Your task to perform on an android device: turn vacation reply on in the gmail app Image 0: 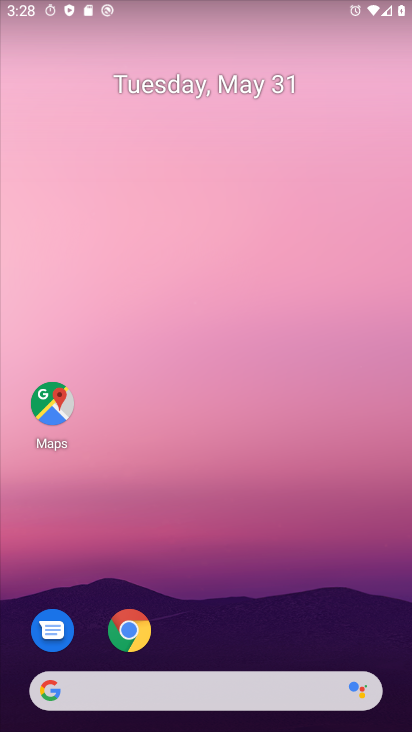
Step 0: drag from (307, 671) to (356, 16)
Your task to perform on an android device: turn vacation reply on in the gmail app Image 1: 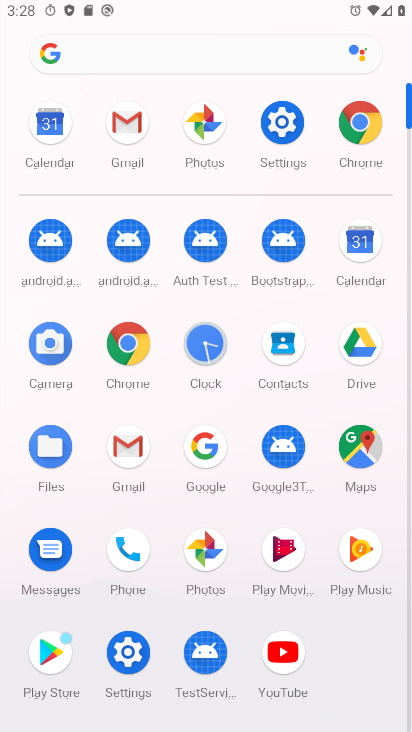
Step 1: click (145, 448)
Your task to perform on an android device: turn vacation reply on in the gmail app Image 2: 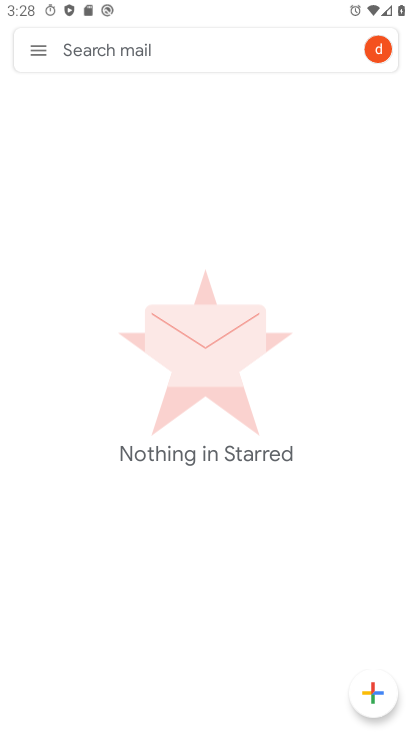
Step 2: click (35, 49)
Your task to perform on an android device: turn vacation reply on in the gmail app Image 3: 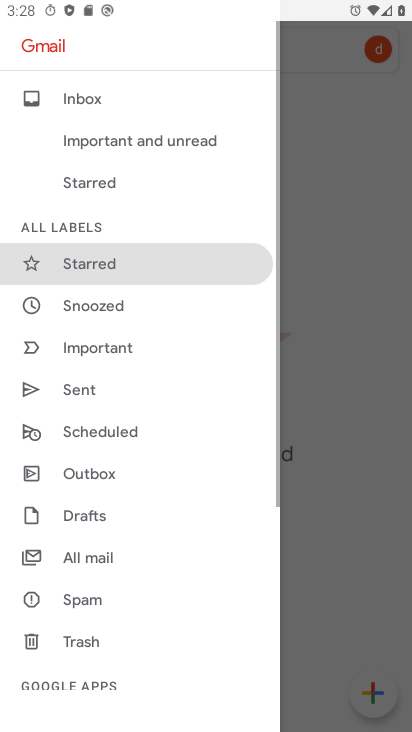
Step 3: drag from (155, 650) to (183, 309)
Your task to perform on an android device: turn vacation reply on in the gmail app Image 4: 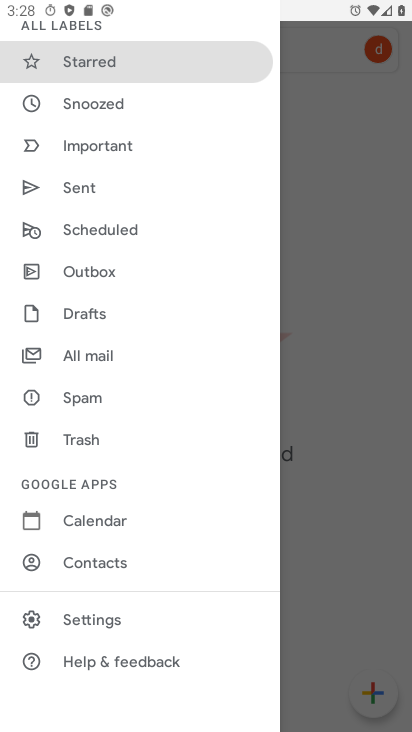
Step 4: click (106, 624)
Your task to perform on an android device: turn vacation reply on in the gmail app Image 5: 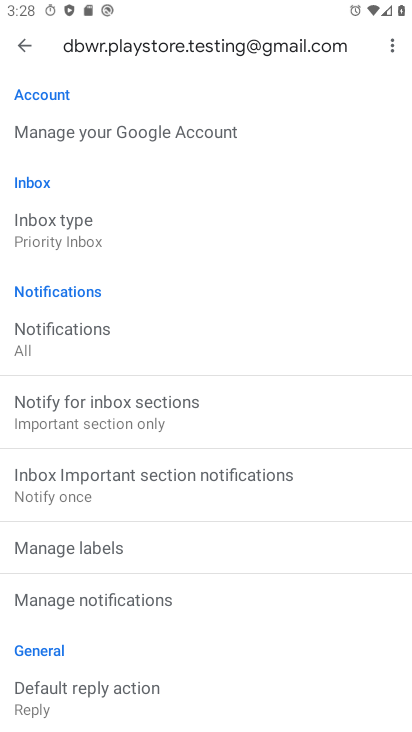
Step 5: drag from (182, 676) to (197, 95)
Your task to perform on an android device: turn vacation reply on in the gmail app Image 6: 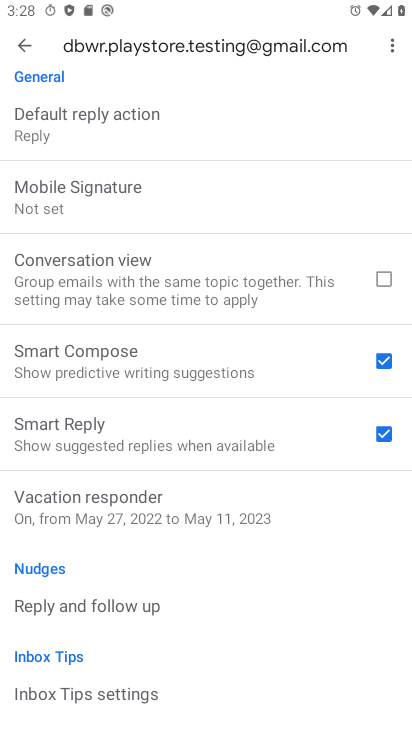
Step 6: click (252, 504)
Your task to perform on an android device: turn vacation reply on in the gmail app Image 7: 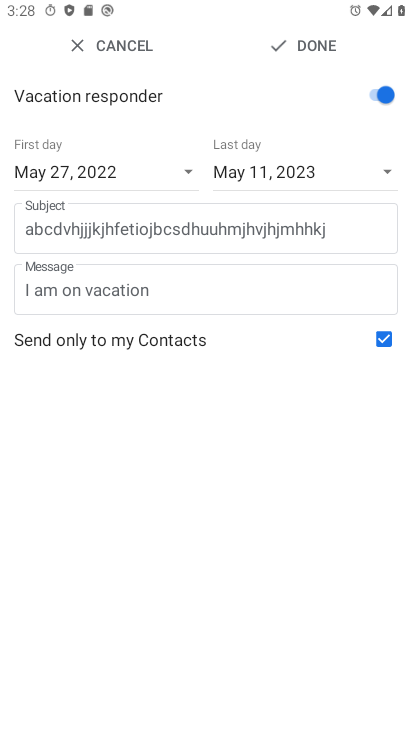
Step 7: task complete